Your task to perform on an android device: Go to display settings Image 0: 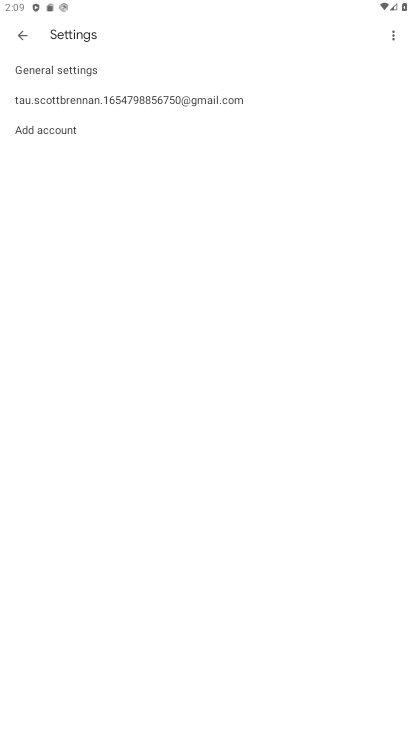
Step 0: press home button
Your task to perform on an android device: Go to display settings Image 1: 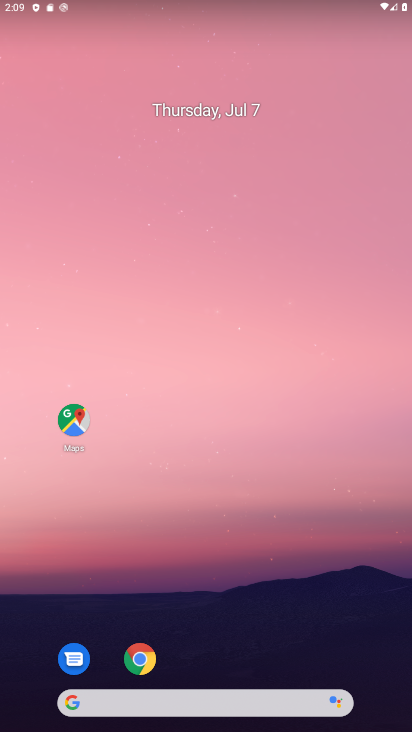
Step 1: drag from (226, 579) to (106, 98)
Your task to perform on an android device: Go to display settings Image 2: 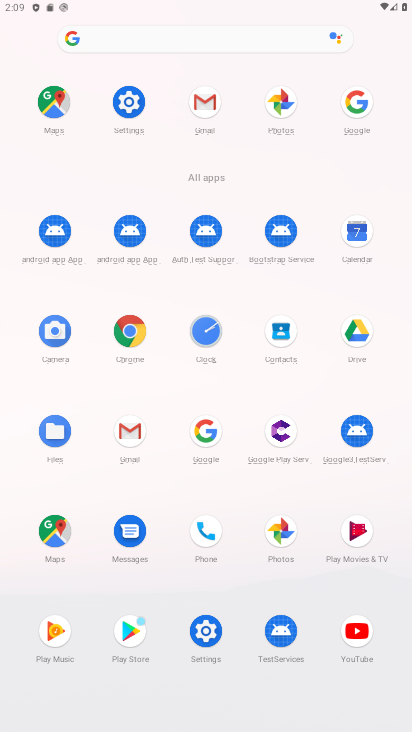
Step 2: click (130, 105)
Your task to perform on an android device: Go to display settings Image 3: 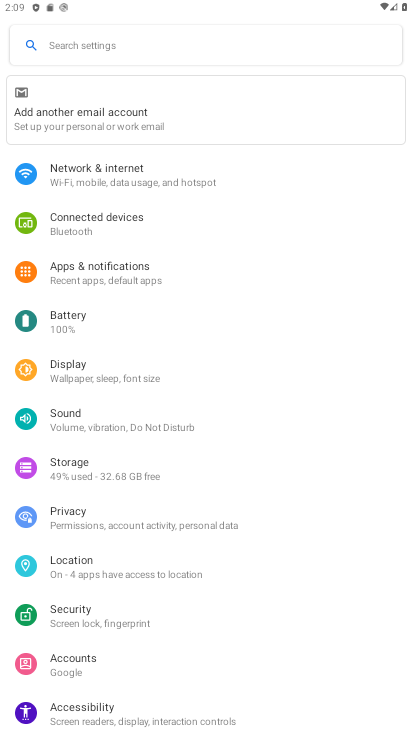
Step 3: click (67, 365)
Your task to perform on an android device: Go to display settings Image 4: 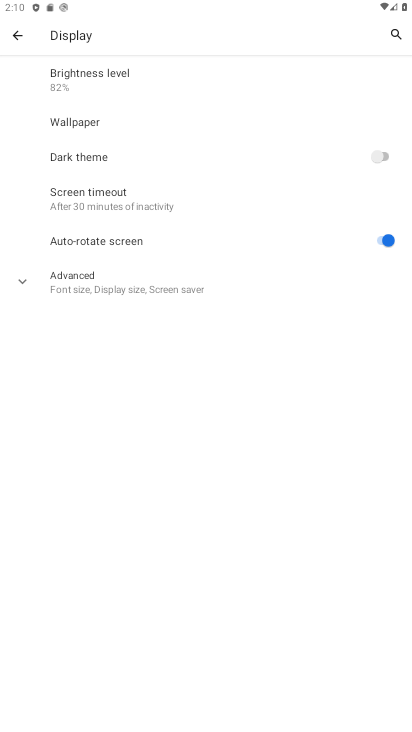
Step 4: task complete